Your task to perform on an android device: turn off airplane mode Image 0: 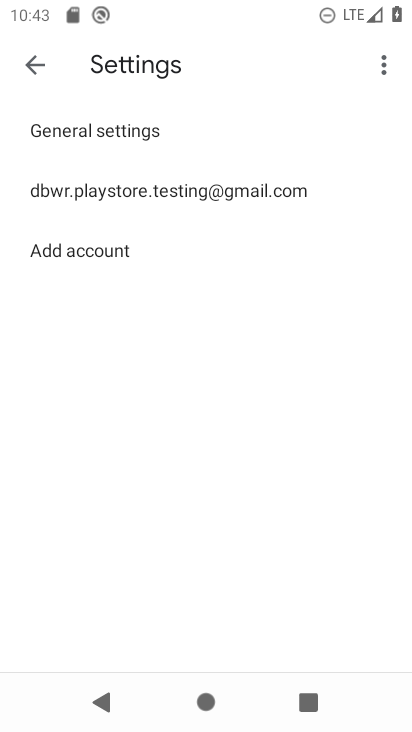
Step 0: press home button
Your task to perform on an android device: turn off airplane mode Image 1: 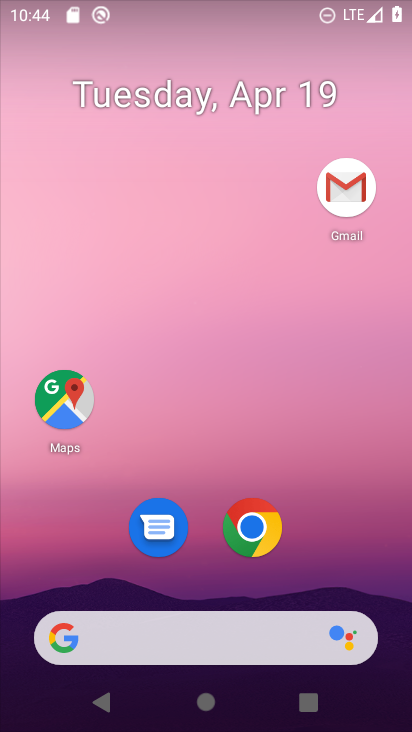
Step 1: drag from (381, 483) to (384, 84)
Your task to perform on an android device: turn off airplane mode Image 2: 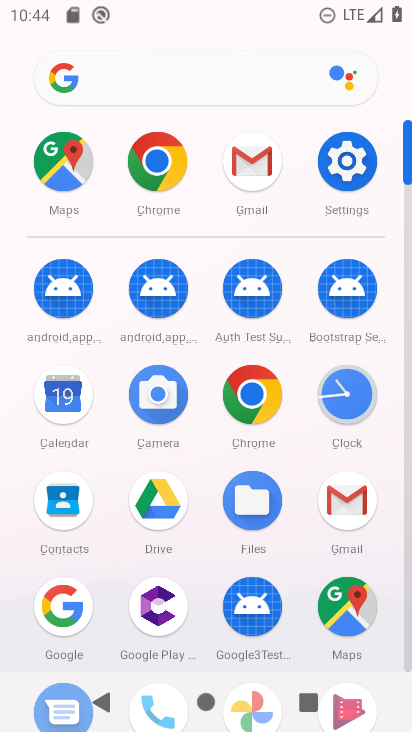
Step 2: click (344, 179)
Your task to perform on an android device: turn off airplane mode Image 3: 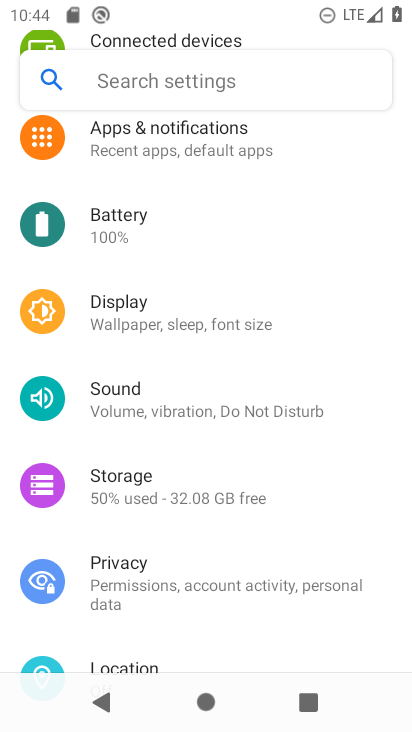
Step 3: drag from (331, 200) to (320, 559)
Your task to perform on an android device: turn off airplane mode Image 4: 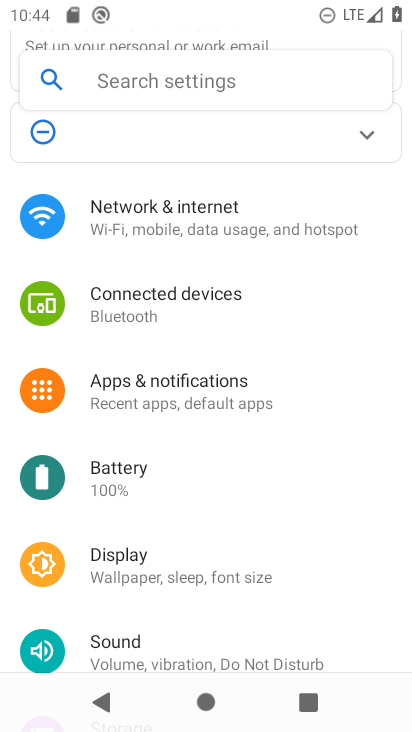
Step 4: click (240, 227)
Your task to perform on an android device: turn off airplane mode Image 5: 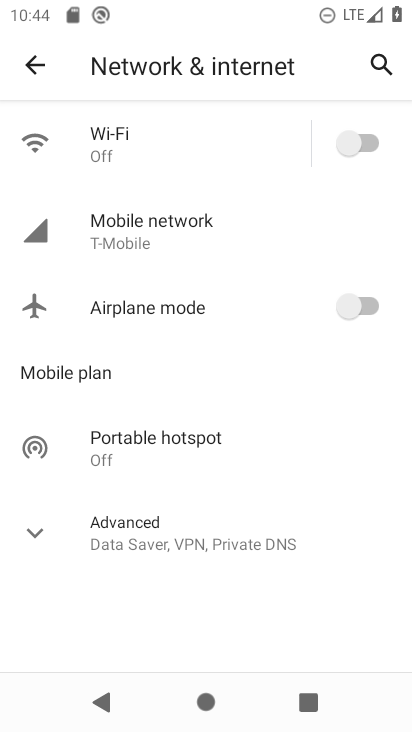
Step 5: task complete